Your task to perform on an android device: Search for razer kraken on target.com, select the first entry, and add it to the cart. Image 0: 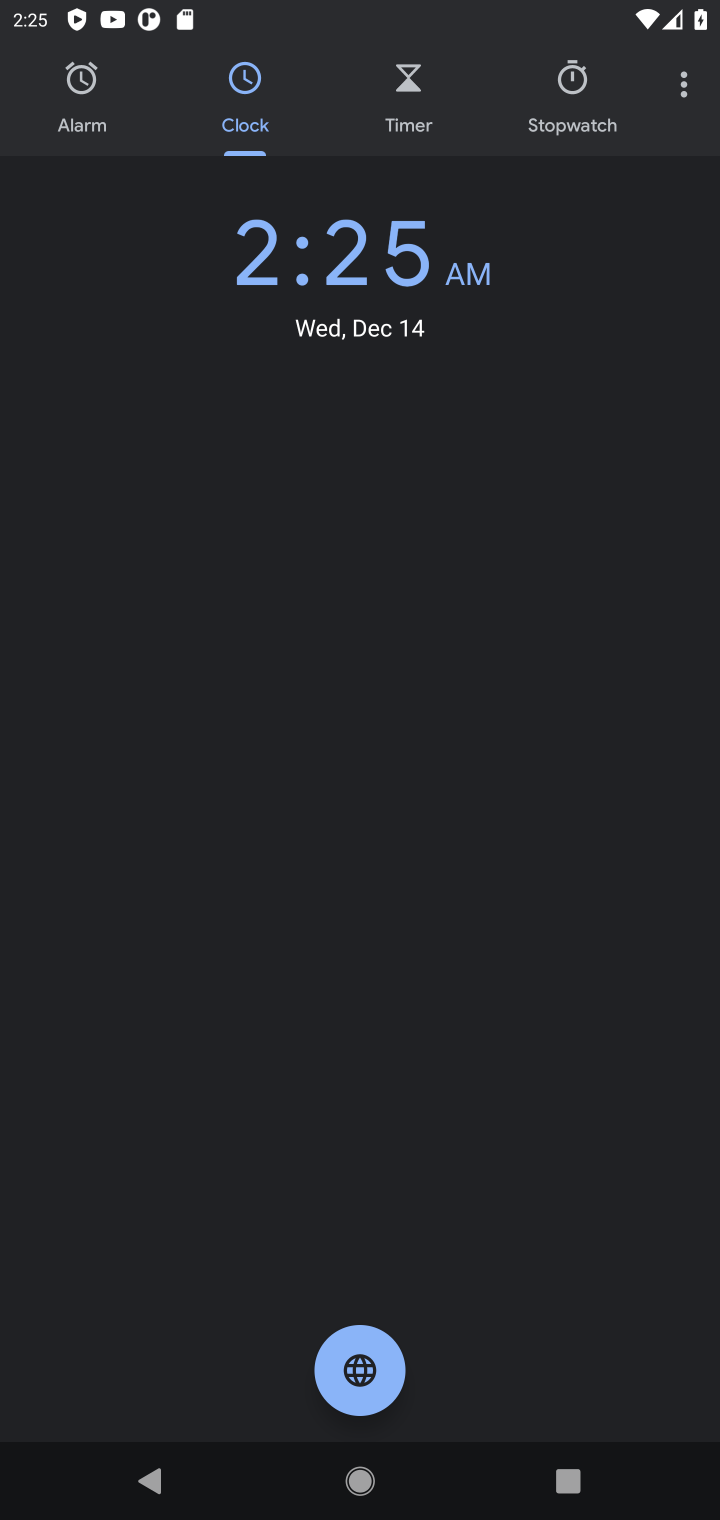
Step 0: task complete